Your task to perform on an android device: turn off priority inbox in the gmail app Image 0: 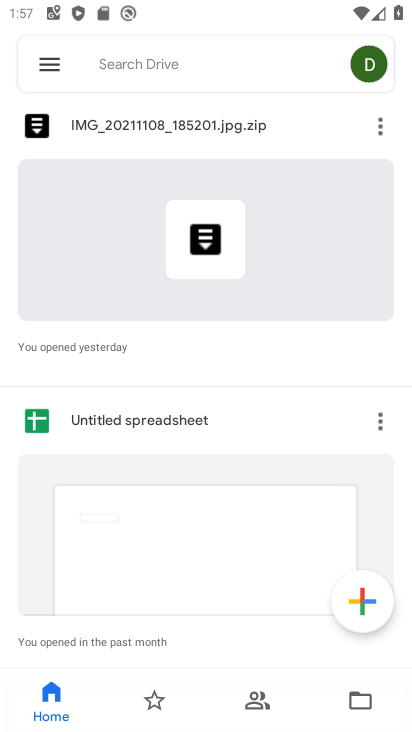
Step 0: press home button
Your task to perform on an android device: turn off priority inbox in the gmail app Image 1: 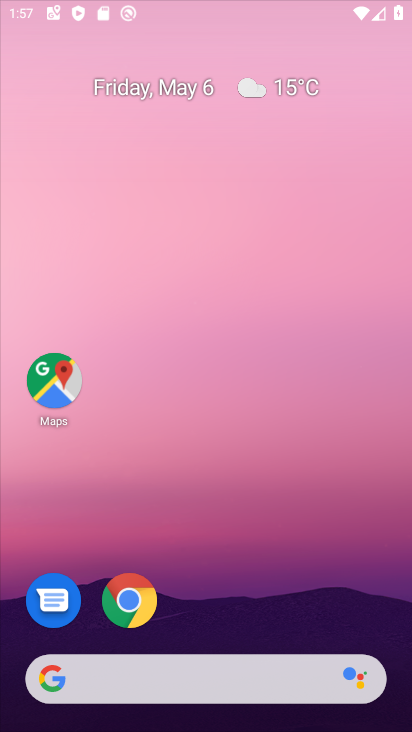
Step 1: drag from (342, 600) to (300, 72)
Your task to perform on an android device: turn off priority inbox in the gmail app Image 2: 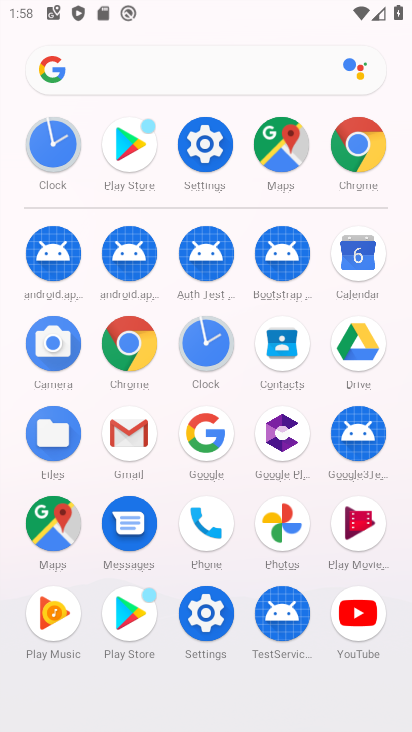
Step 2: click (131, 449)
Your task to perform on an android device: turn off priority inbox in the gmail app Image 3: 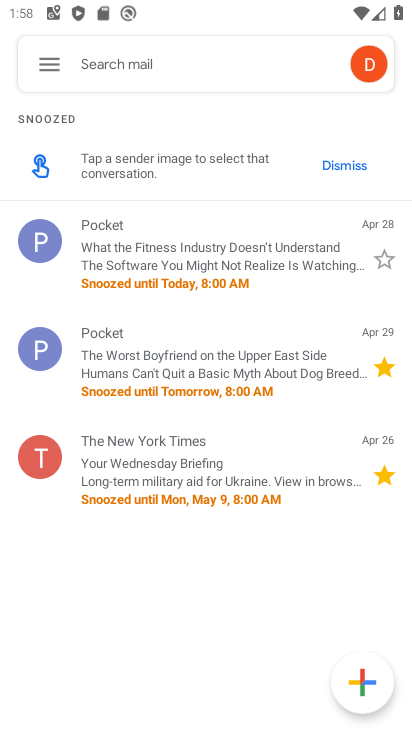
Step 3: click (46, 68)
Your task to perform on an android device: turn off priority inbox in the gmail app Image 4: 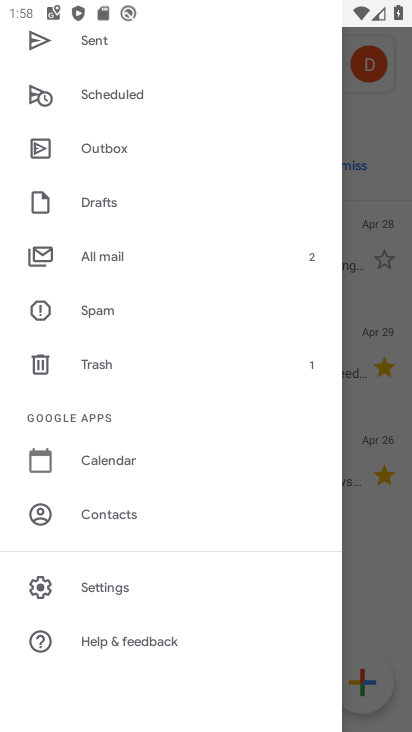
Step 4: click (188, 591)
Your task to perform on an android device: turn off priority inbox in the gmail app Image 5: 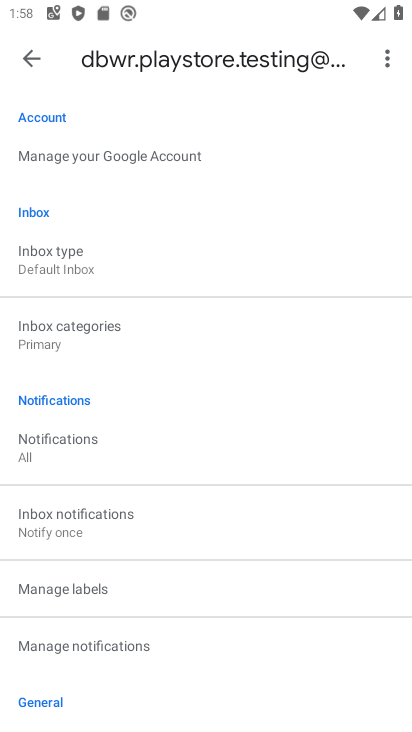
Step 5: click (145, 264)
Your task to perform on an android device: turn off priority inbox in the gmail app Image 6: 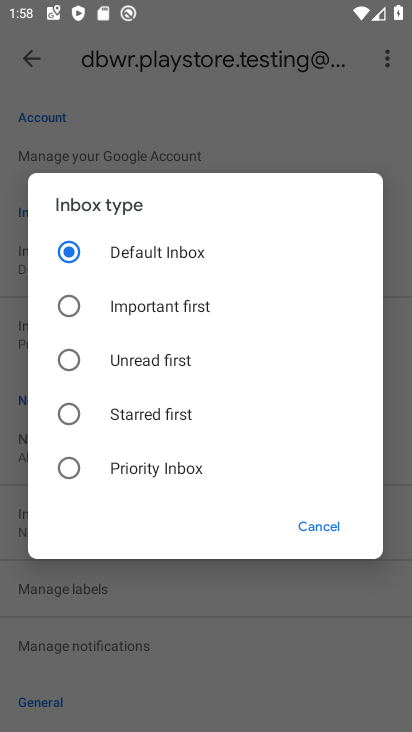
Step 6: task complete